Your task to perform on an android device: Open privacy settings Image 0: 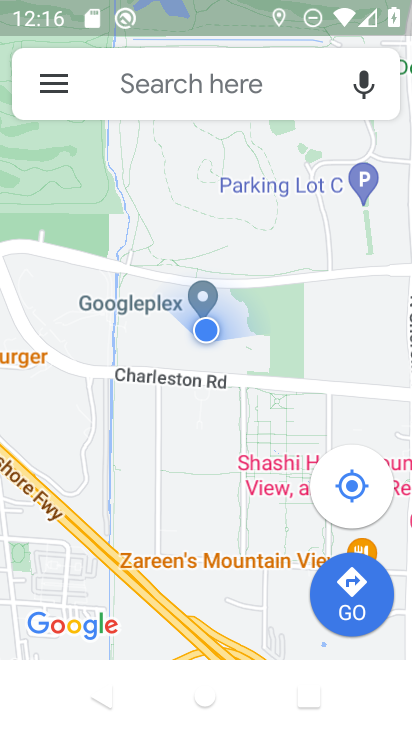
Step 0: press home button
Your task to perform on an android device: Open privacy settings Image 1: 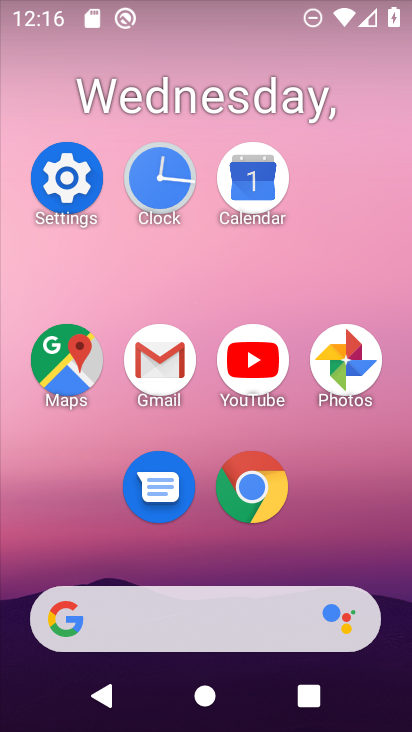
Step 1: click (55, 200)
Your task to perform on an android device: Open privacy settings Image 2: 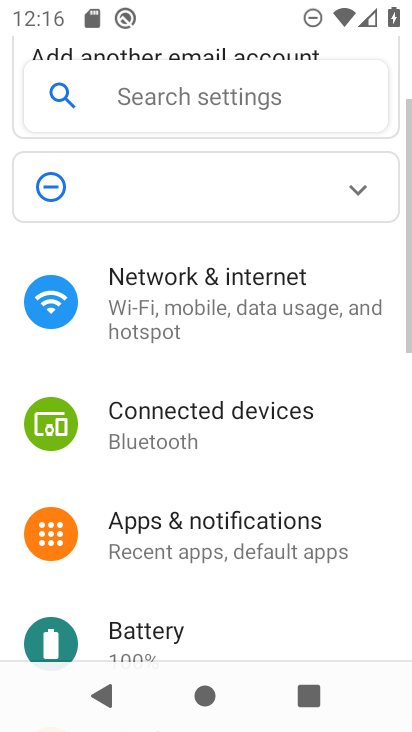
Step 2: drag from (248, 562) to (314, 163)
Your task to perform on an android device: Open privacy settings Image 3: 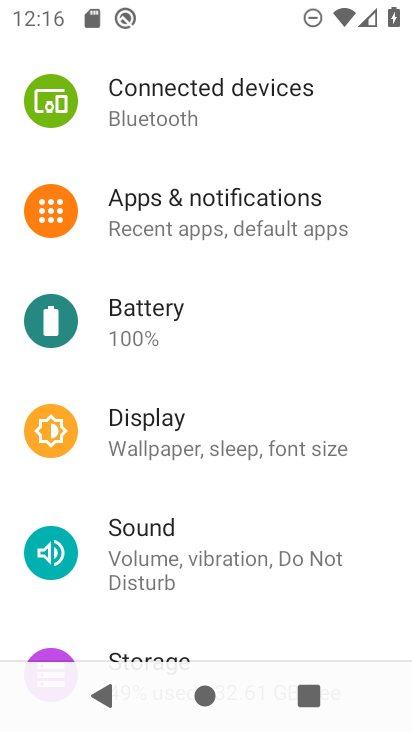
Step 3: drag from (280, 526) to (304, 94)
Your task to perform on an android device: Open privacy settings Image 4: 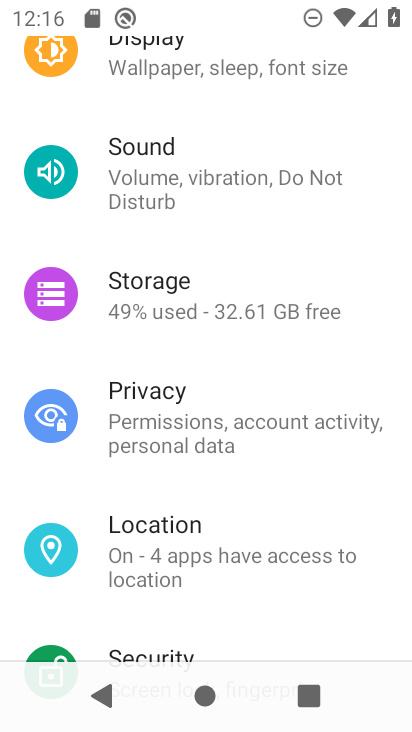
Step 4: click (265, 452)
Your task to perform on an android device: Open privacy settings Image 5: 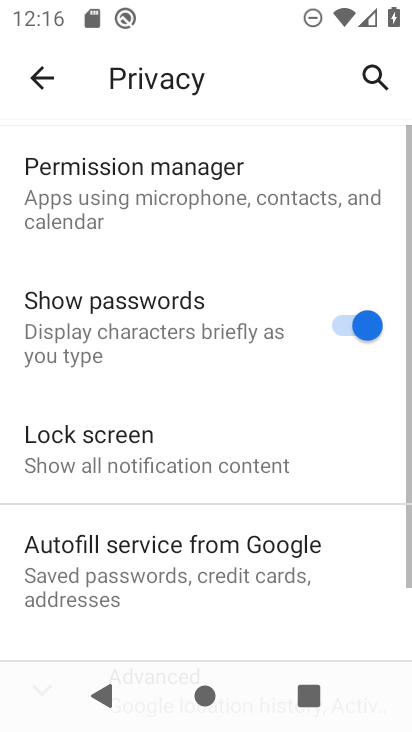
Step 5: task complete